Your task to perform on an android device: check android version Image 0: 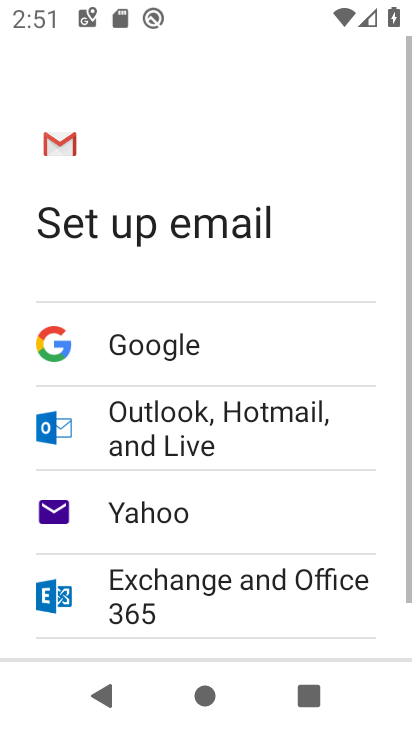
Step 0: press home button
Your task to perform on an android device: check android version Image 1: 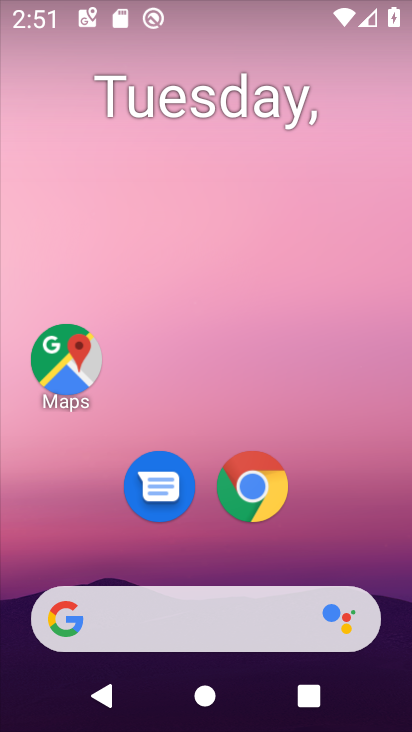
Step 1: drag from (219, 567) to (239, 41)
Your task to perform on an android device: check android version Image 2: 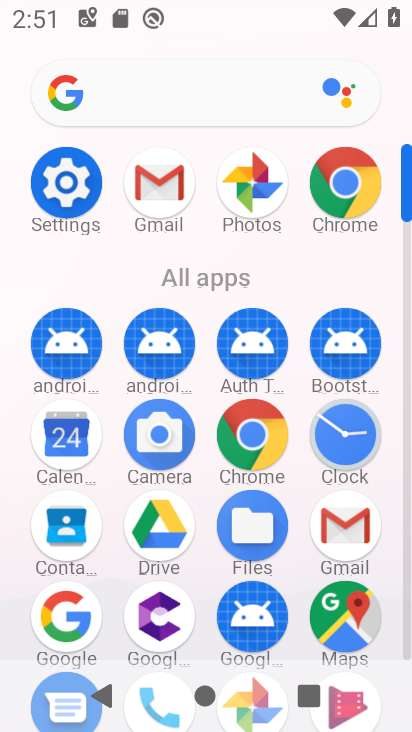
Step 2: drag from (207, 540) to (241, 299)
Your task to perform on an android device: check android version Image 3: 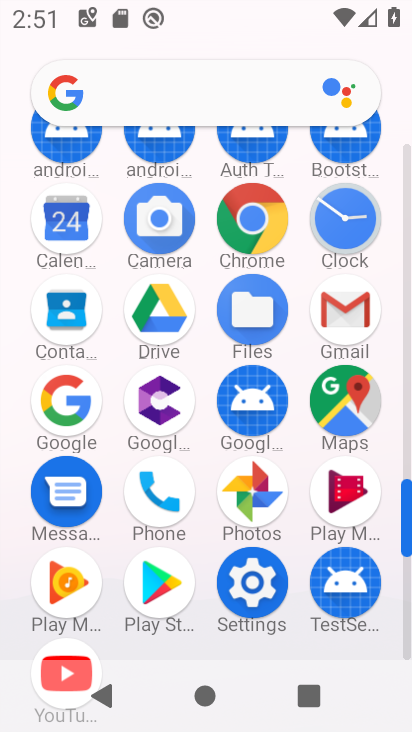
Step 3: click (242, 570)
Your task to perform on an android device: check android version Image 4: 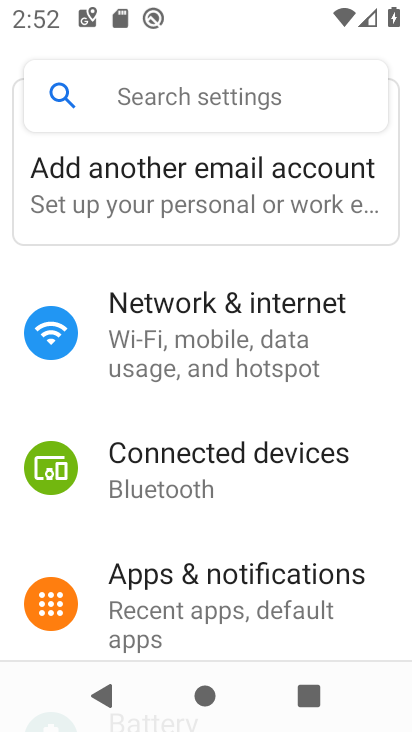
Step 4: drag from (264, 631) to (307, 121)
Your task to perform on an android device: check android version Image 5: 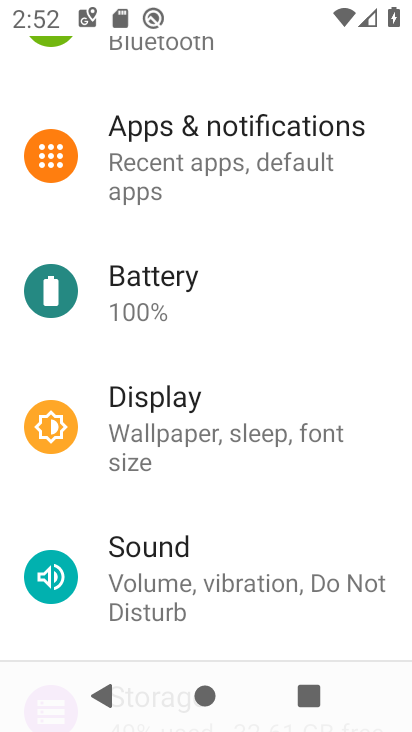
Step 5: drag from (225, 605) to (292, 82)
Your task to perform on an android device: check android version Image 6: 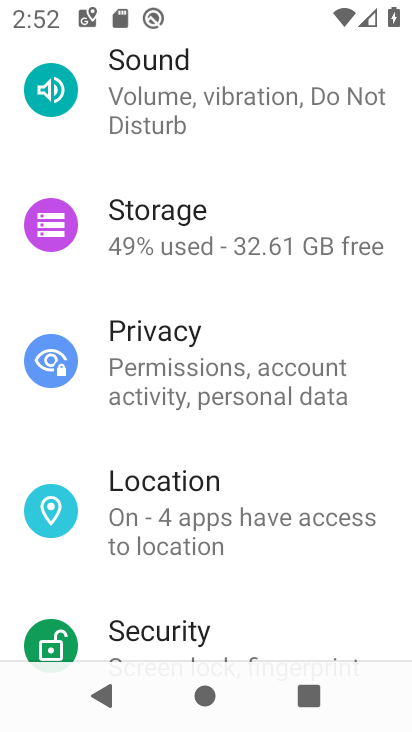
Step 6: click (246, 313)
Your task to perform on an android device: check android version Image 7: 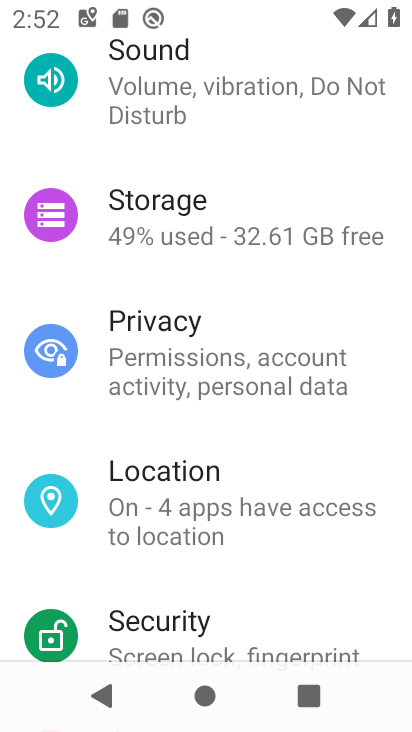
Step 7: drag from (258, 610) to (269, 126)
Your task to perform on an android device: check android version Image 8: 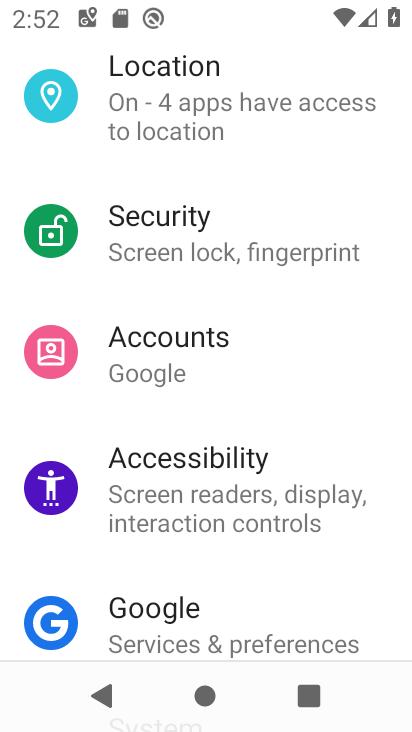
Step 8: drag from (168, 596) to (227, 54)
Your task to perform on an android device: check android version Image 9: 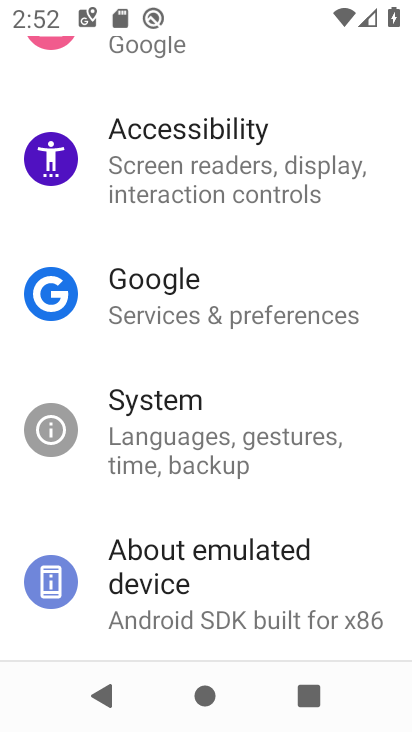
Step 9: click (258, 604)
Your task to perform on an android device: check android version Image 10: 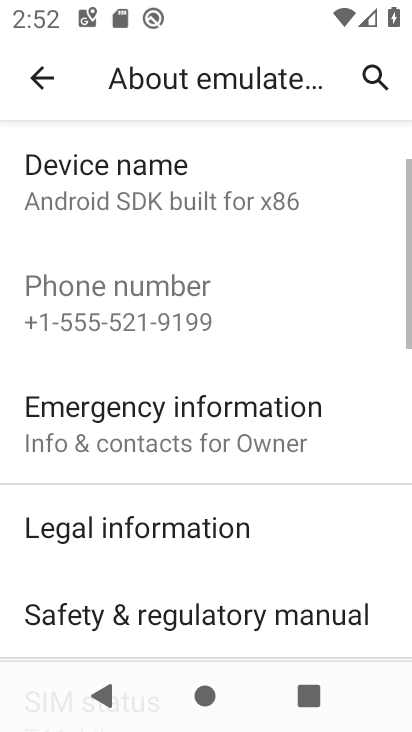
Step 10: drag from (222, 577) to (226, 164)
Your task to perform on an android device: check android version Image 11: 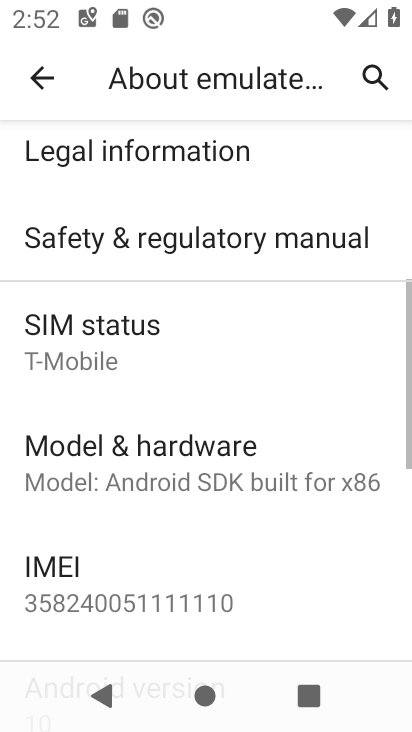
Step 11: drag from (159, 566) to (187, 274)
Your task to perform on an android device: check android version Image 12: 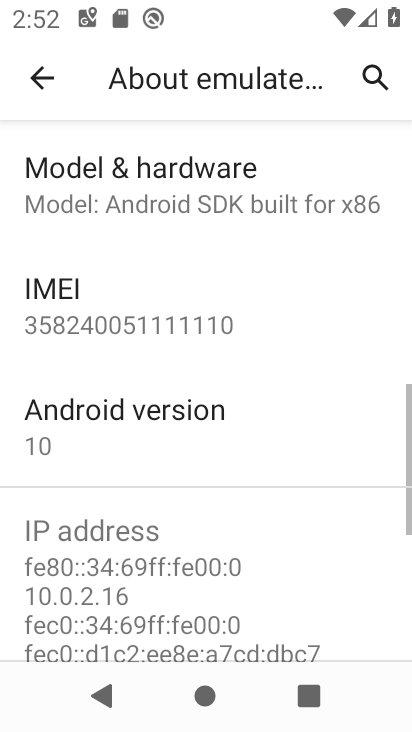
Step 12: click (182, 451)
Your task to perform on an android device: check android version Image 13: 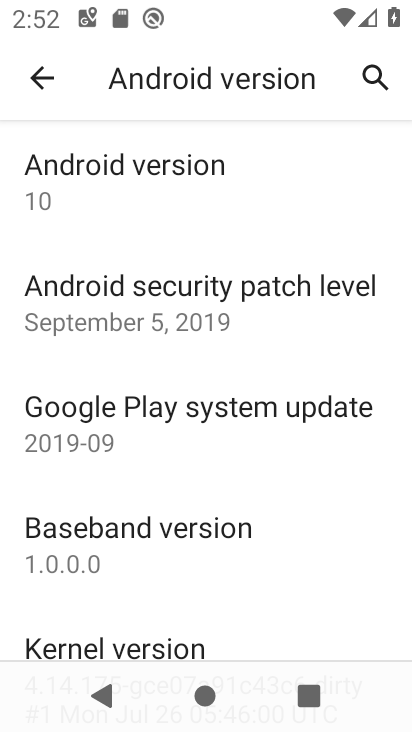
Step 13: task complete